Your task to perform on an android device: Search for vegetarian restaurants on Maps Image 0: 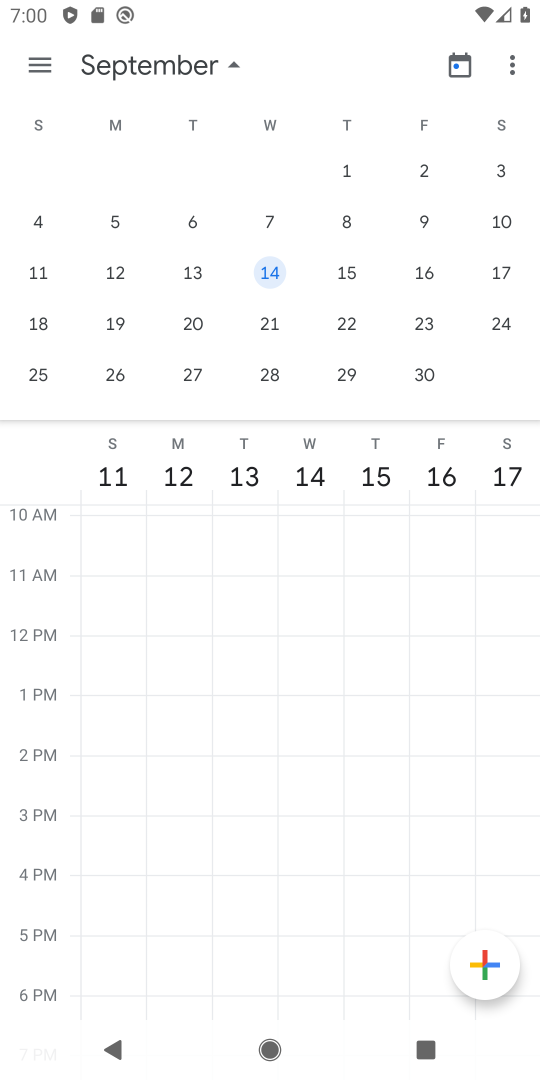
Step 0: press home button
Your task to perform on an android device: Search for vegetarian restaurants on Maps Image 1: 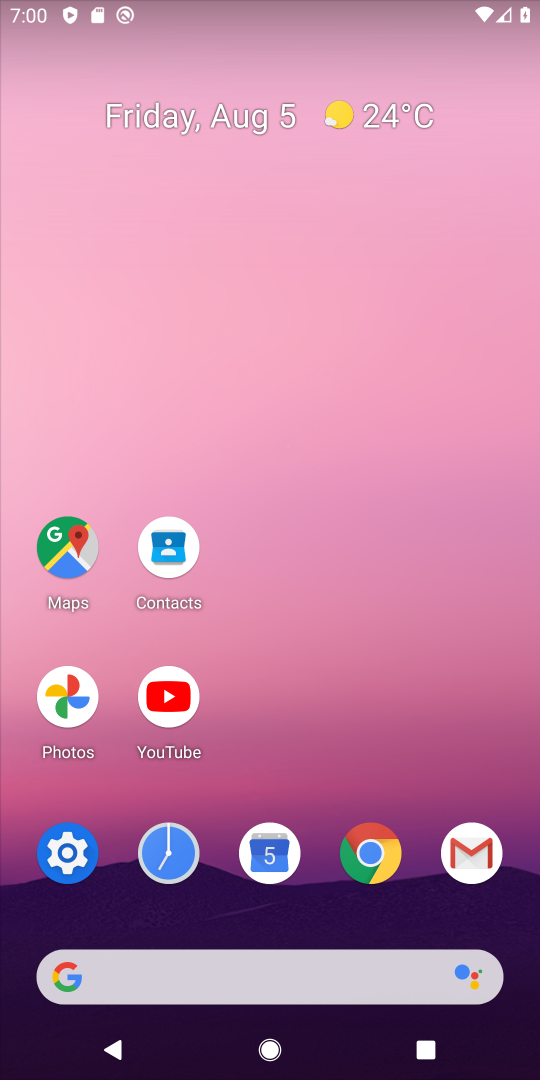
Step 1: click (66, 544)
Your task to perform on an android device: Search for vegetarian restaurants on Maps Image 2: 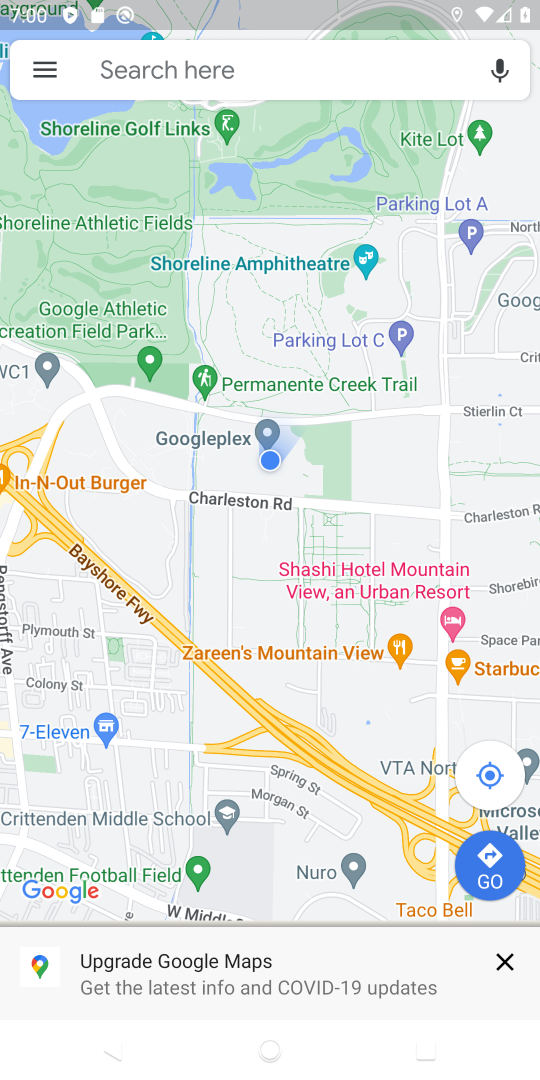
Step 2: click (223, 74)
Your task to perform on an android device: Search for vegetarian restaurants on Maps Image 3: 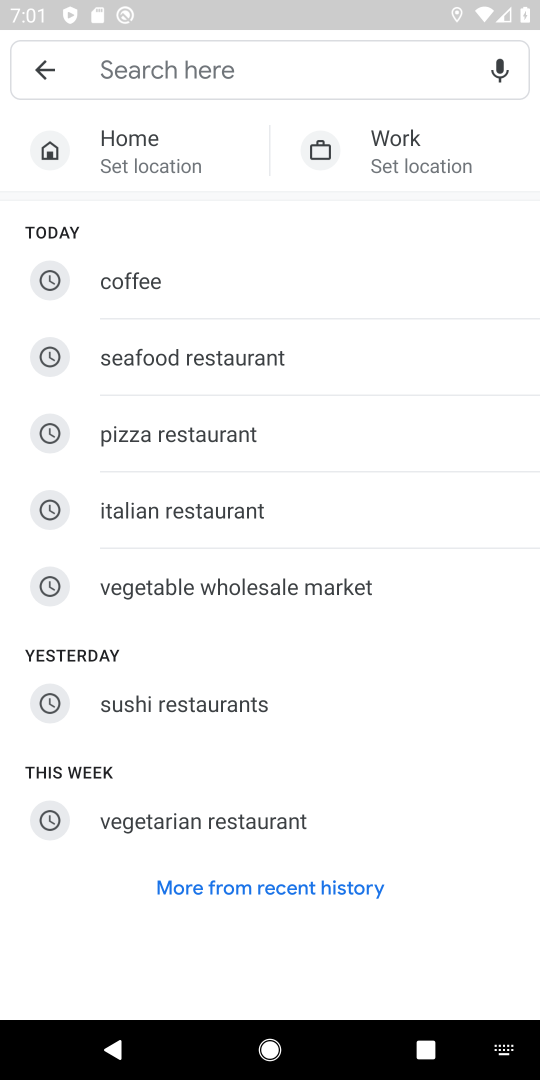
Step 3: click (224, 816)
Your task to perform on an android device: Search for vegetarian restaurants on Maps Image 4: 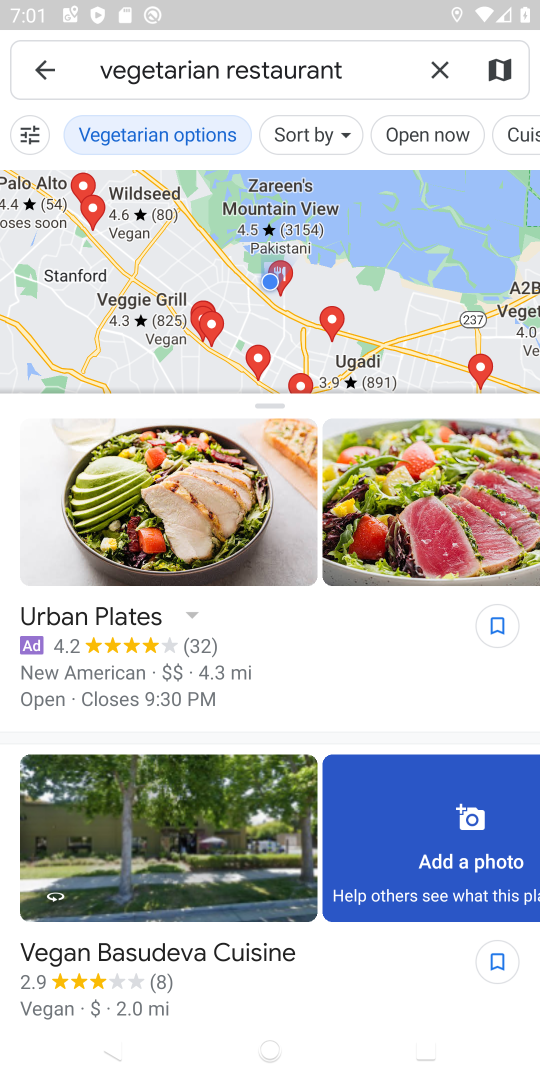
Step 4: task complete